Your task to perform on an android device: all mails in gmail Image 0: 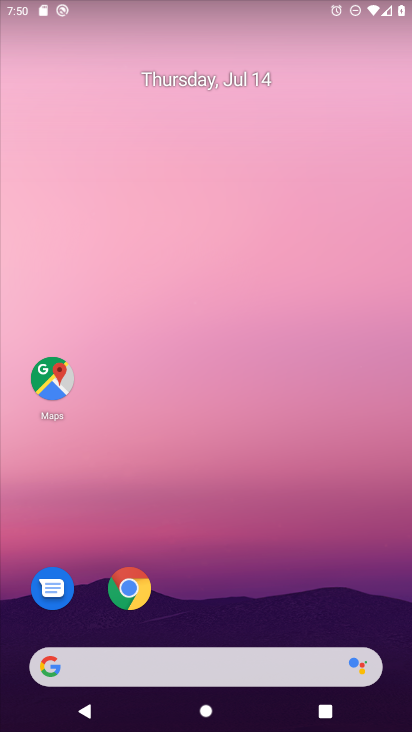
Step 0: drag from (52, 689) to (271, 233)
Your task to perform on an android device: all mails in gmail Image 1: 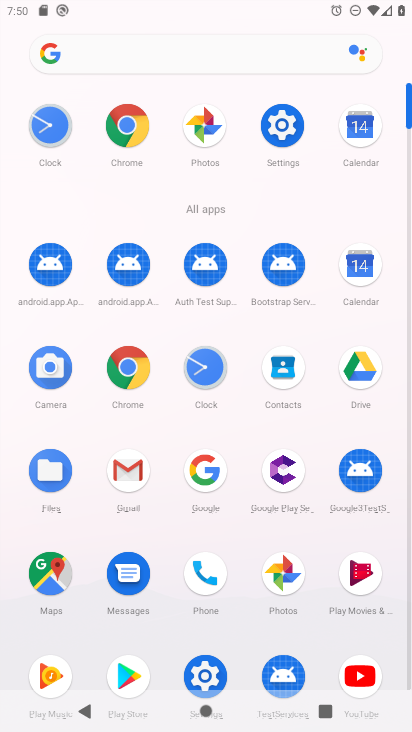
Step 1: click (133, 463)
Your task to perform on an android device: all mails in gmail Image 2: 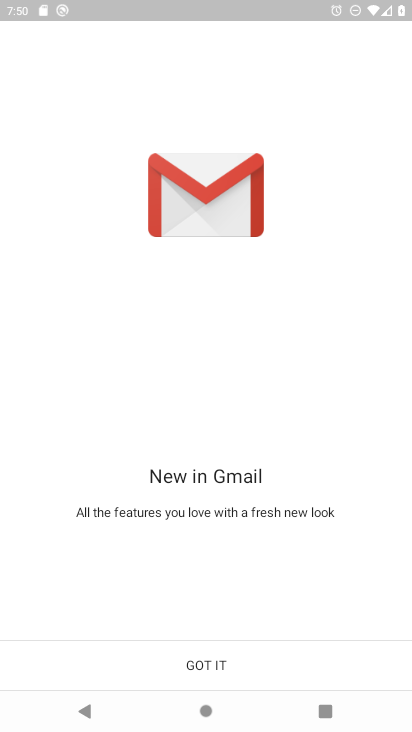
Step 2: click (197, 663)
Your task to perform on an android device: all mails in gmail Image 3: 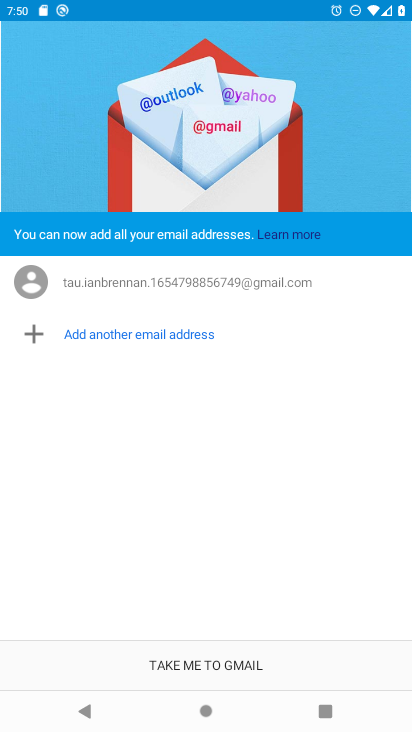
Step 3: click (192, 669)
Your task to perform on an android device: all mails in gmail Image 4: 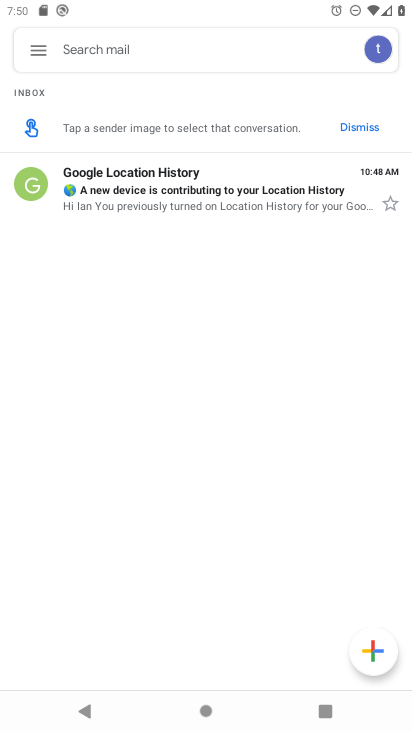
Step 4: click (36, 56)
Your task to perform on an android device: all mails in gmail Image 5: 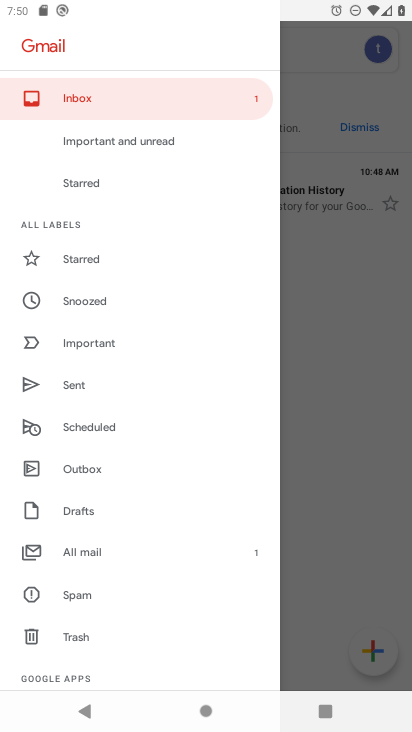
Step 5: click (74, 540)
Your task to perform on an android device: all mails in gmail Image 6: 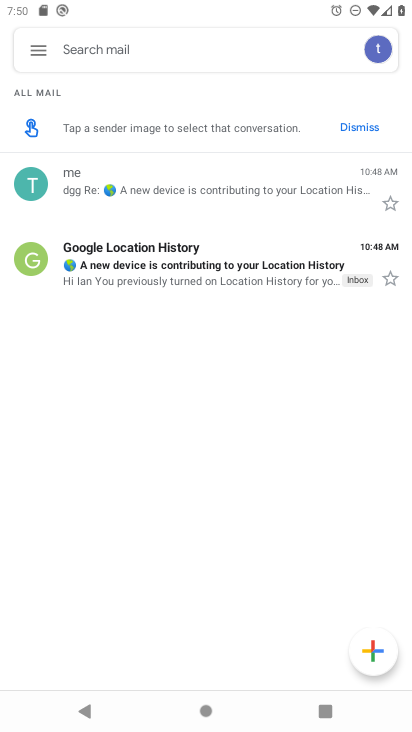
Step 6: task complete